Your task to perform on an android device: What is the recent news? Image 0: 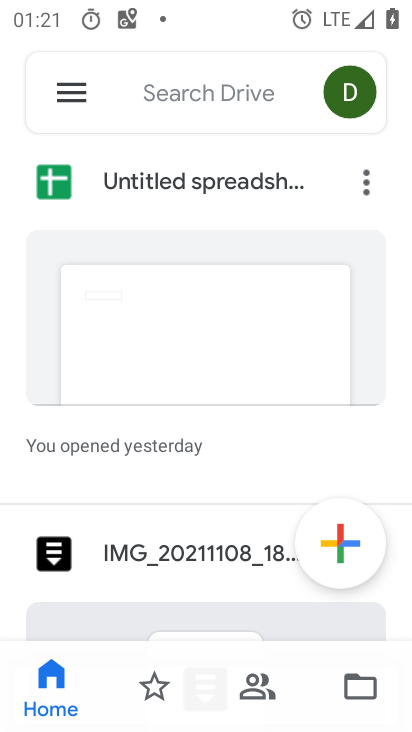
Step 0: press home button
Your task to perform on an android device: What is the recent news? Image 1: 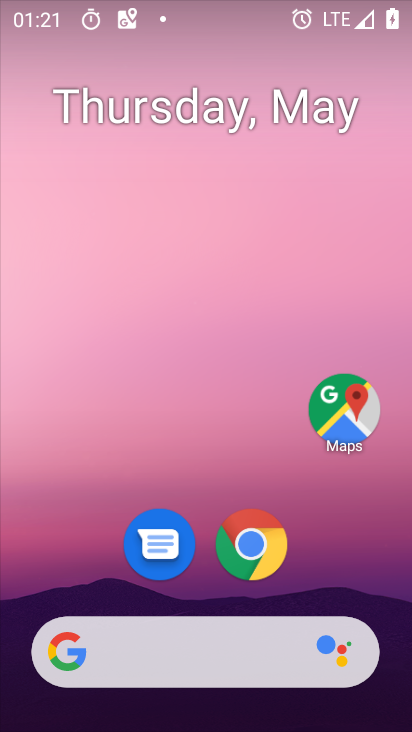
Step 1: task complete